Your task to perform on an android device: Open calendar and show me the second week of next month Image 0: 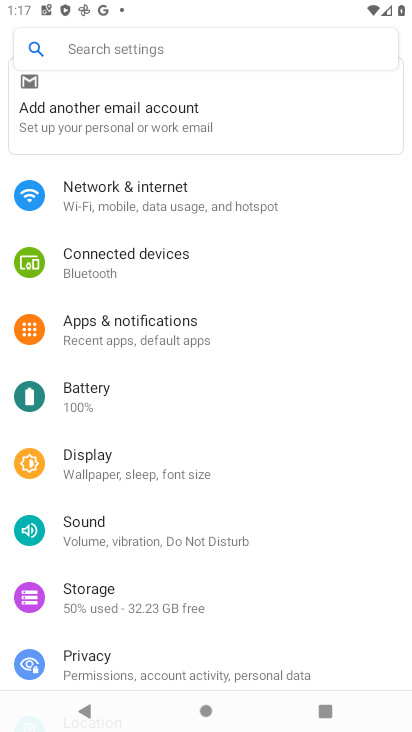
Step 0: press home button
Your task to perform on an android device: Open calendar and show me the second week of next month Image 1: 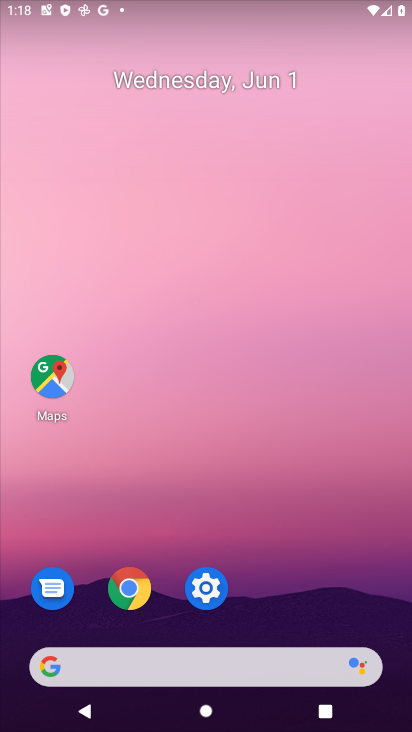
Step 1: drag from (222, 580) to (258, 26)
Your task to perform on an android device: Open calendar and show me the second week of next month Image 2: 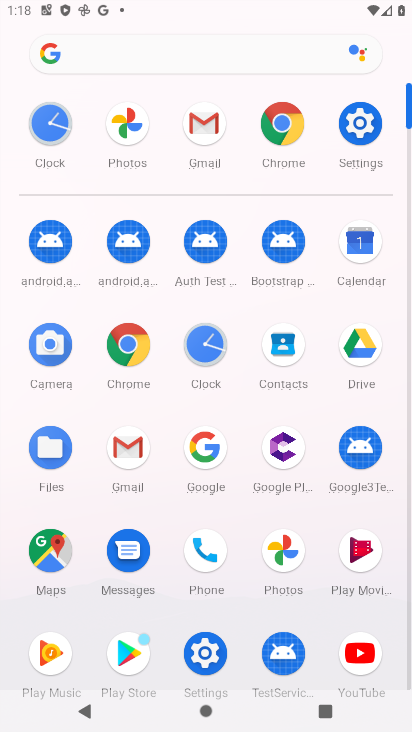
Step 2: click (341, 264)
Your task to perform on an android device: Open calendar and show me the second week of next month Image 3: 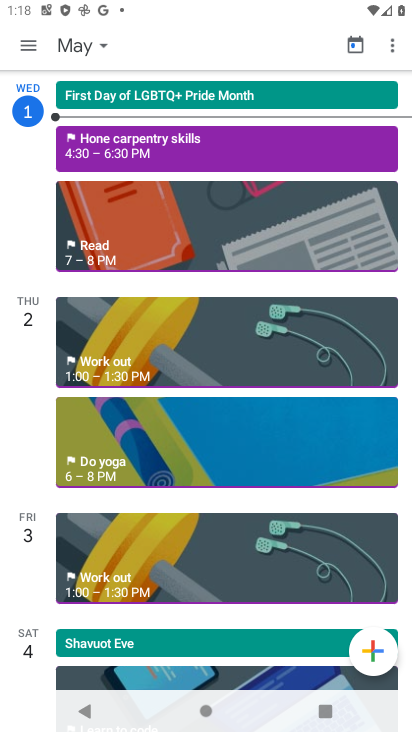
Step 3: click (39, 49)
Your task to perform on an android device: Open calendar and show me the second week of next month Image 4: 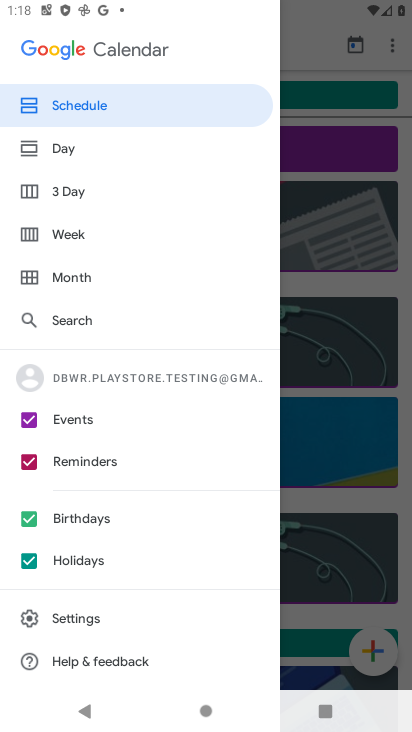
Step 4: click (66, 277)
Your task to perform on an android device: Open calendar and show me the second week of next month Image 5: 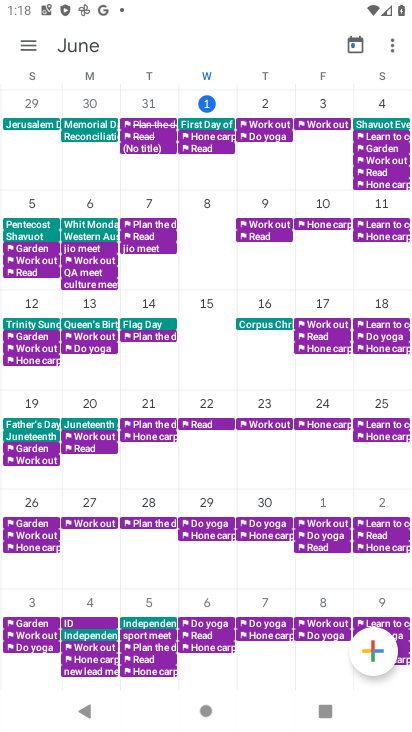
Step 5: drag from (386, 445) to (16, 389)
Your task to perform on an android device: Open calendar and show me the second week of next month Image 6: 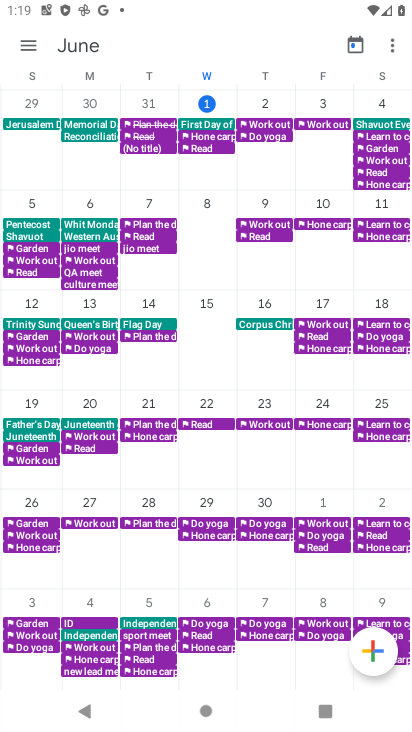
Step 6: click (85, 320)
Your task to perform on an android device: Open calendar and show me the second week of next month Image 7: 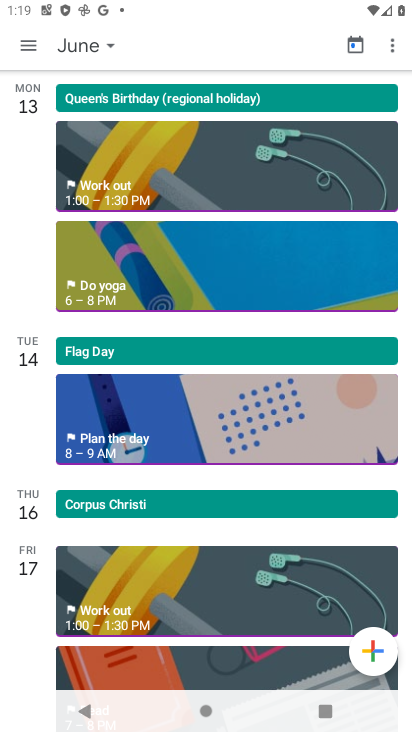
Step 7: task complete